Your task to perform on an android device: Open Google Chrome and click the shortcut for Amazon.com Image 0: 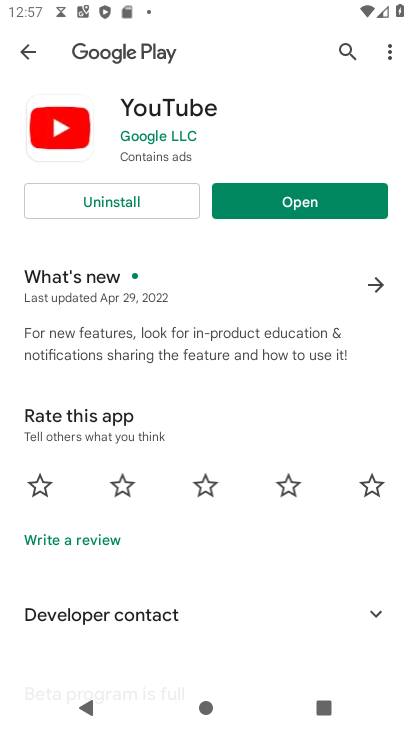
Step 0: press home button
Your task to perform on an android device: Open Google Chrome and click the shortcut for Amazon.com Image 1: 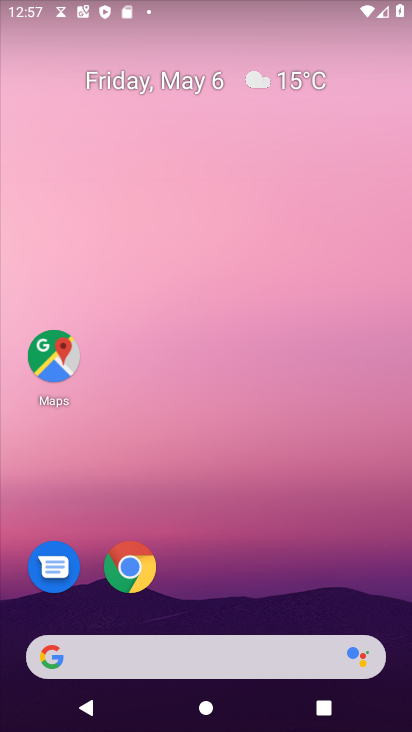
Step 1: drag from (332, 475) to (296, 0)
Your task to perform on an android device: Open Google Chrome and click the shortcut for Amazon.com Image 2: 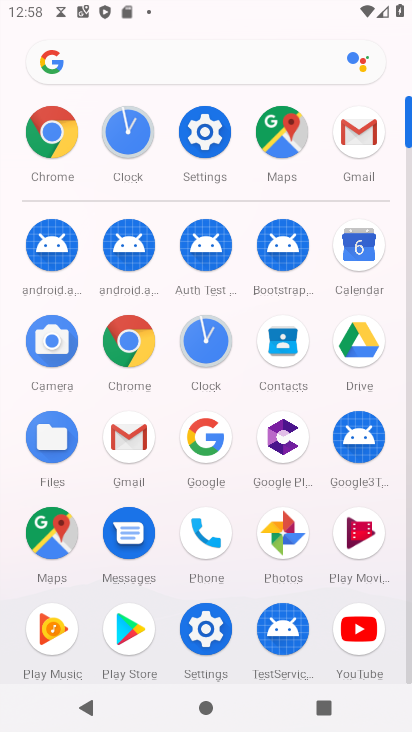
Step 2: click (46, 121)
Your task to perform on an android device: Open Google Chrome and click the shortcut for Amazon.com Image 3: 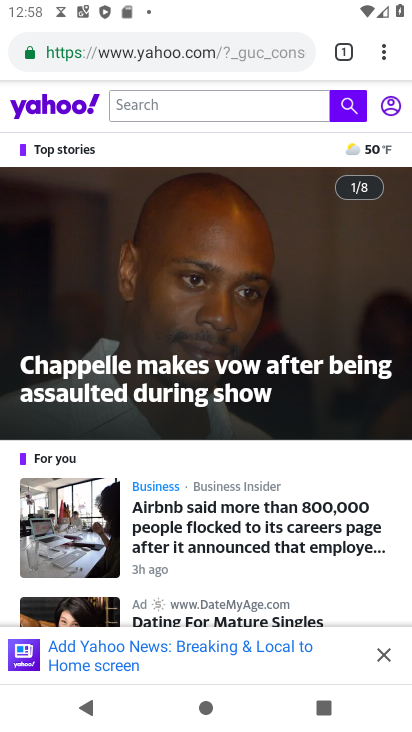
Step 3: click (241, 48)
Your task to perform on an android device: Open Google Chrome and click the shortcut for Amazon.com Image 4: 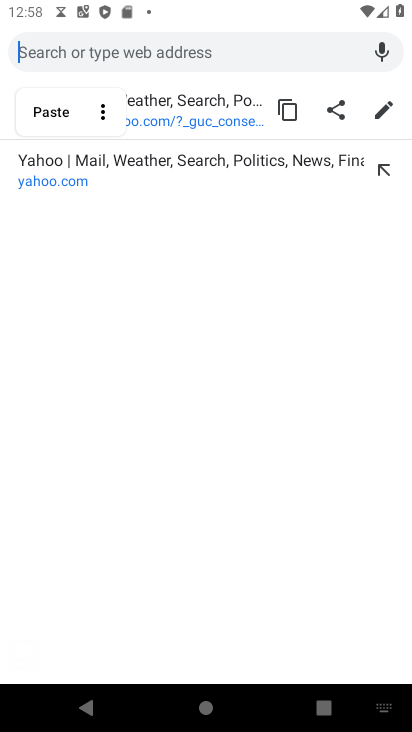
Step 4: type "amazon.com"
Your task to perform on an android device: Open Google Chrome and click the shortcut for Amazon.com Image 5: 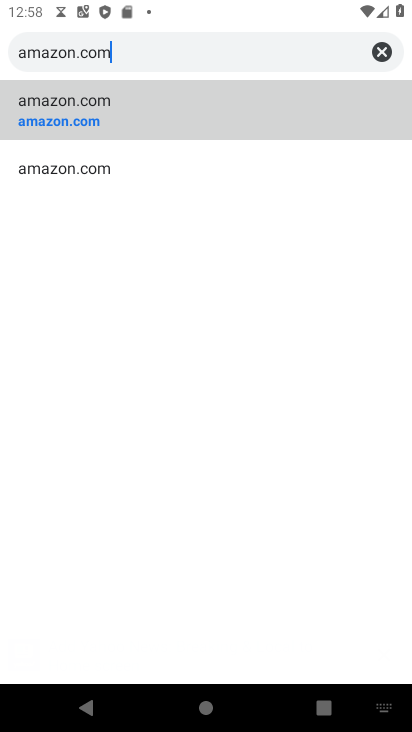
Step 5: click (62, 159)
Your task to perform on an android device: Open Google Chrome and click the shortcut for Amazon.com Image 6: 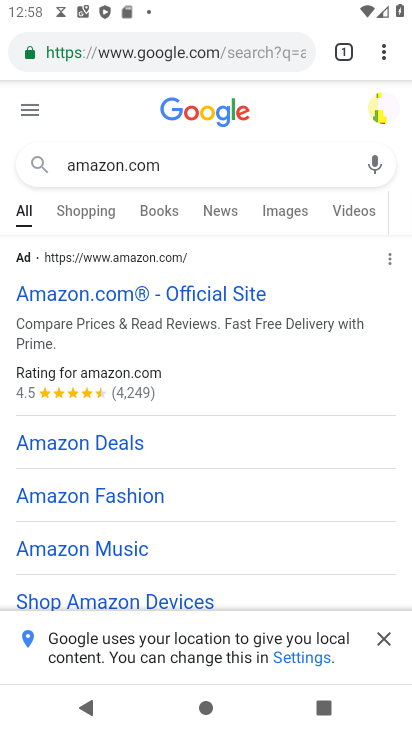
Step 6: click (58, 304)
Your task to perform on an android device: Open Google Chrome and click the shortcut for Amazon.com Image 7: 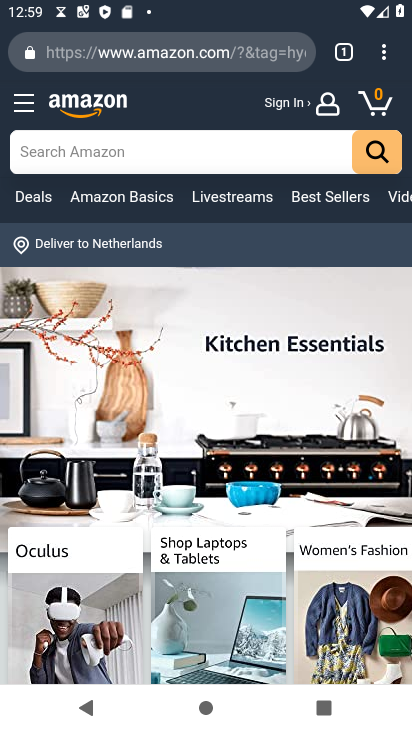
Step 7: drag from (388, 56) to (214, 535)
Your task to perform on an android device: Open Google Chrome and click the shortcut for Amazon.com Image 8: 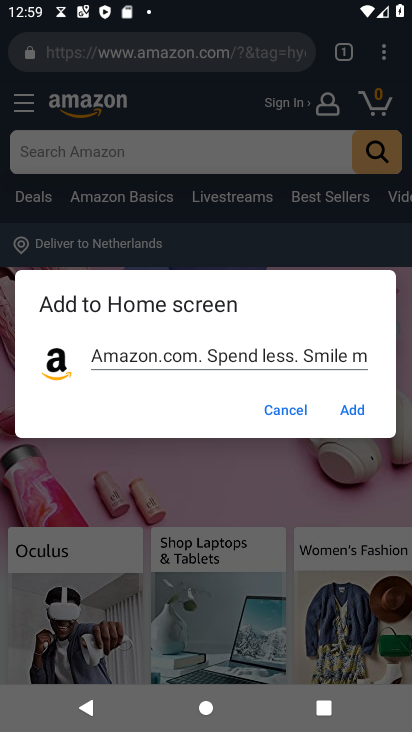
Step 8: click (356, 409)
Your task to perform on an android device: Open Google Chrome and click the shortcut for Amazon.com Image 9: 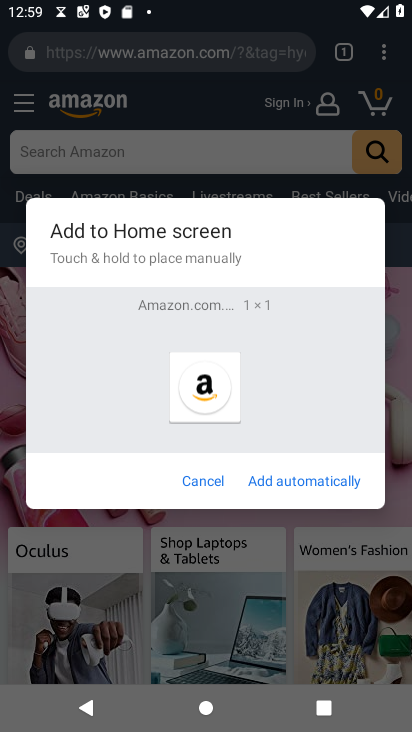
Step 9: click (334, 485)
Your task to perform on an android device: Open Google Chrome and click the shortcut for Amazon.com Image 10: 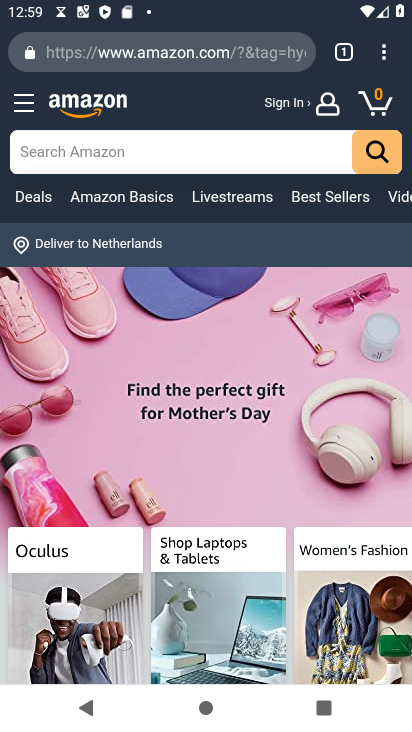
Step 10: click (206, 706)
Your task to perform on an android device: Open Google Chrome and click the shortcut for Amazon.com Image 11: 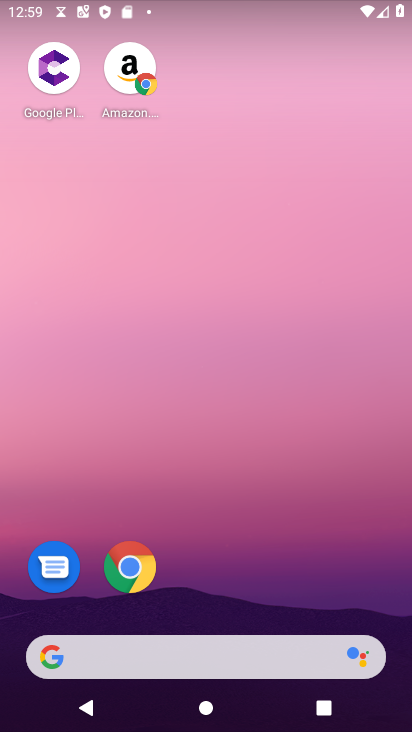
Step 11: task complete